Your task to perform on an android device: clear all cookies in the chrome app Image 0: 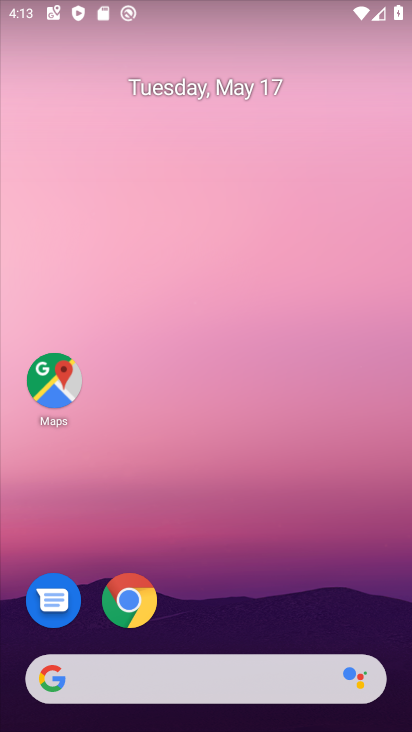
Step 0: drag from (223, 621) to (304, 143)
Your task to perform on an android device: clear all cookies in the chrome app Image 1: 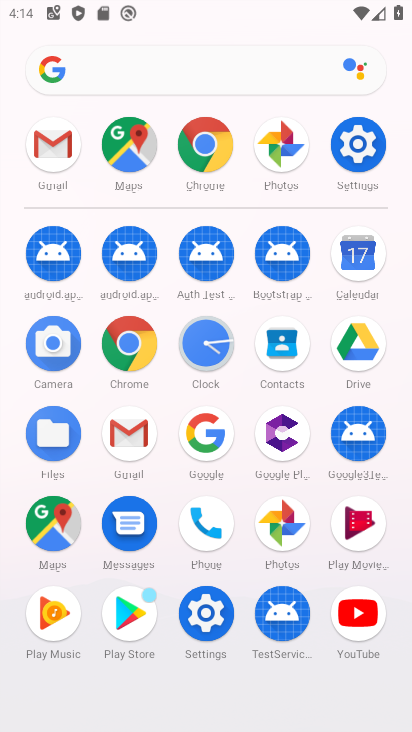
Step 1: click (143, 350)
Your task to perform on an android device: clear all cookies in the chrome app Image 2: 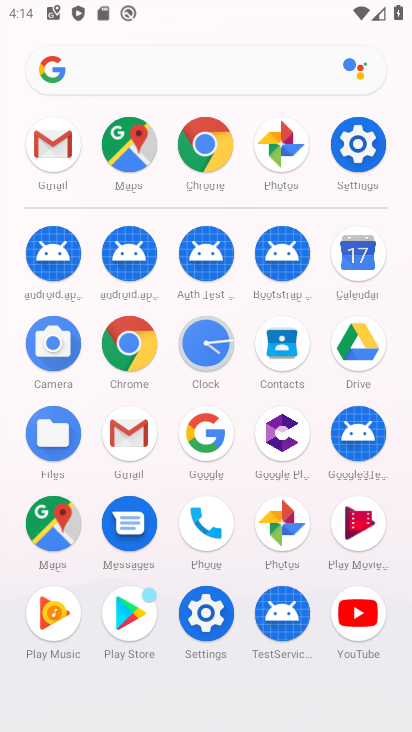
Step 2: click (136, 346)
Your task to perform on an android device: clear all cookies in the chrome app Image 3: 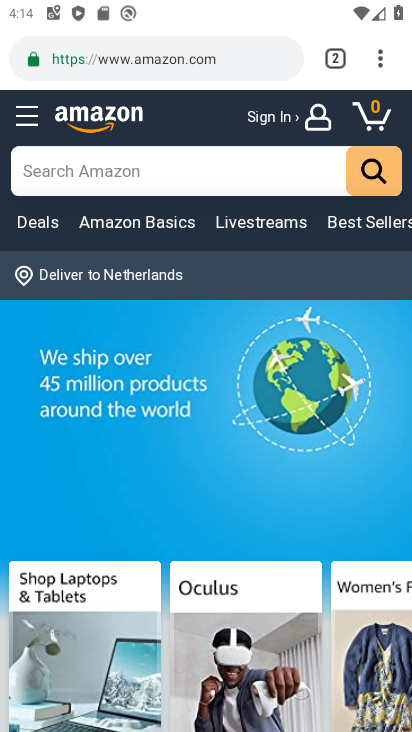
Step 3: click (375, 49)
Your task to perform on an android device: clear all cookies in the chrome app Image 4: 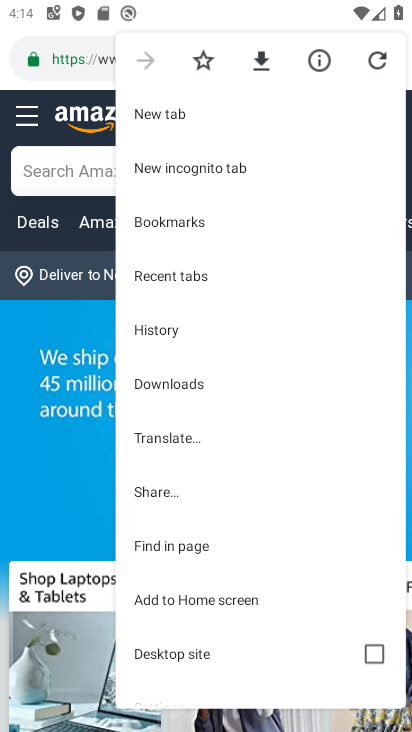
Step 4: click (181, 333)
Your task to perform on an android device: clear all cookies in the chrome app Image 5: 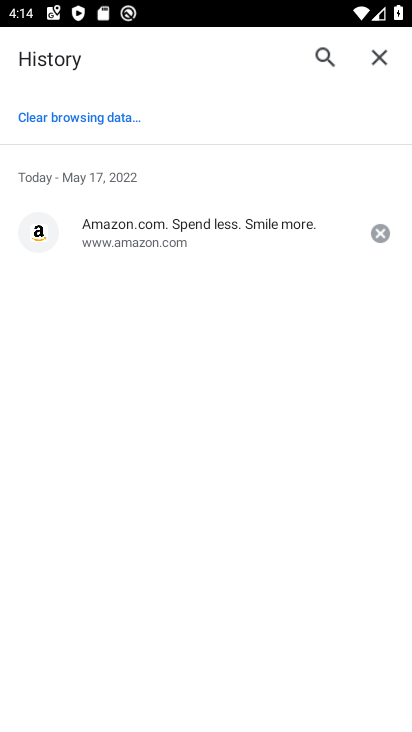
Step 5: click (110, 115)
Your task to perform on an android device: clear all cookies in the chrome app Image 6: 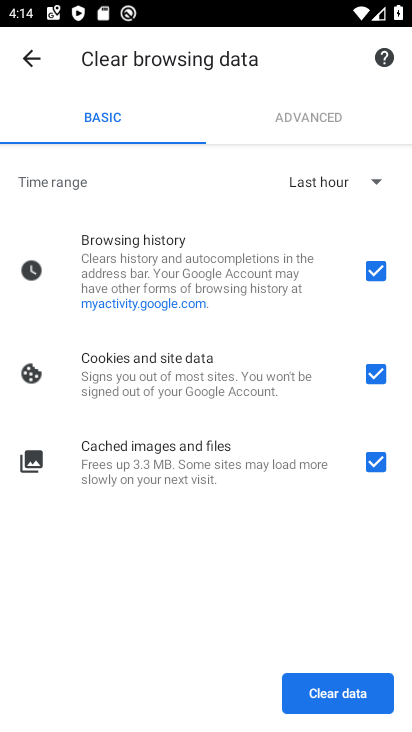
Step 6: click (371, 269)
Your task to perform on an android device: clear all cookies in the chrome app Image 7: 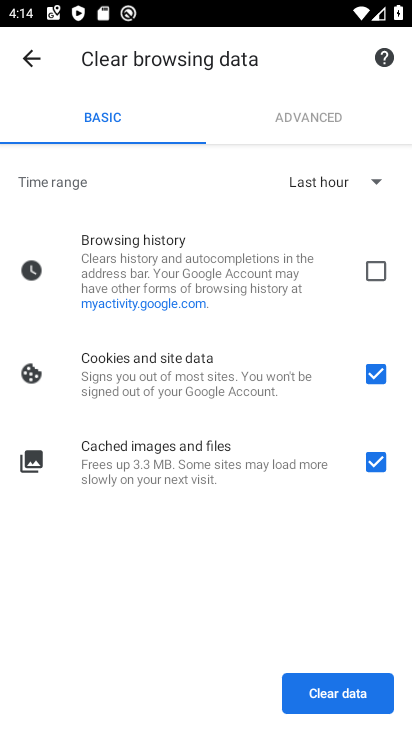
Step 7: click (381, 459)
Your task to perform on an android device: clear all cookies in the chrome app Image 8: 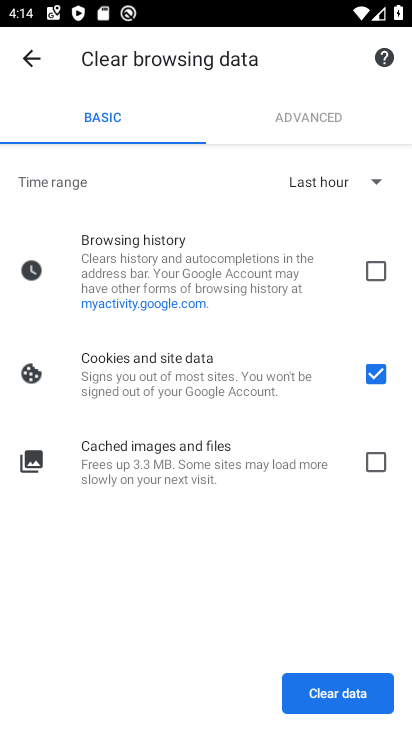
Step 8: click (355, 691)
Your task to perform on an android device: clear all cookies in the chrome app Image 9: 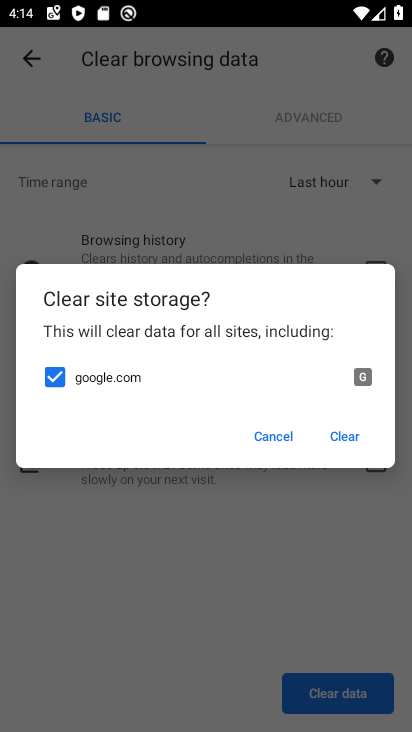
Step 9: click (339, 437)
Your task to perform on an android device: clear all cookies in the chrome app Image 10: 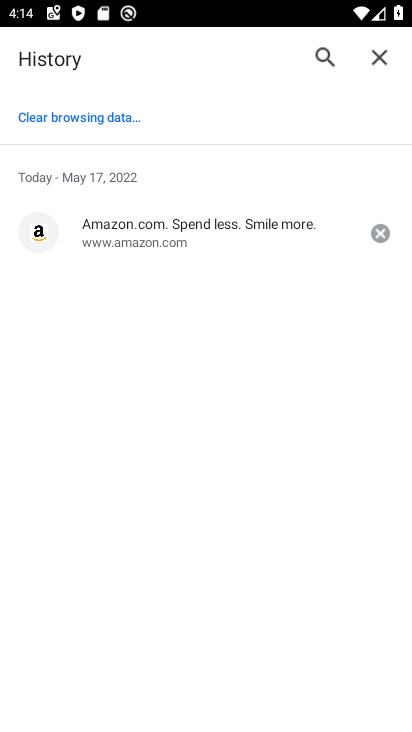
Step 10: task complete